Your task to perform on an android device: Go to settings Image 0: 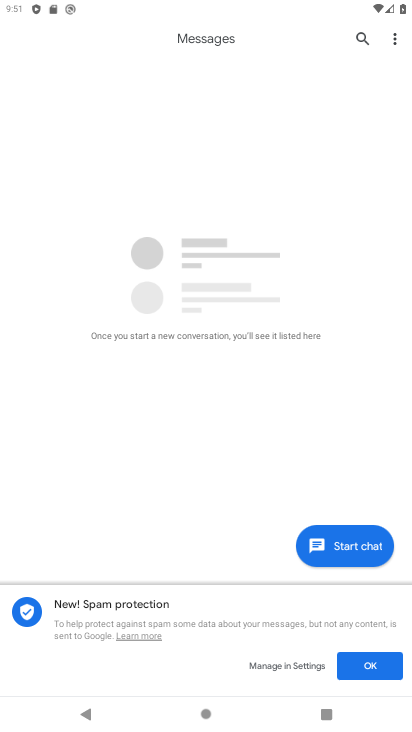
Step 0: press home button
Your task to perform on an android device: Go to settings Image 1: 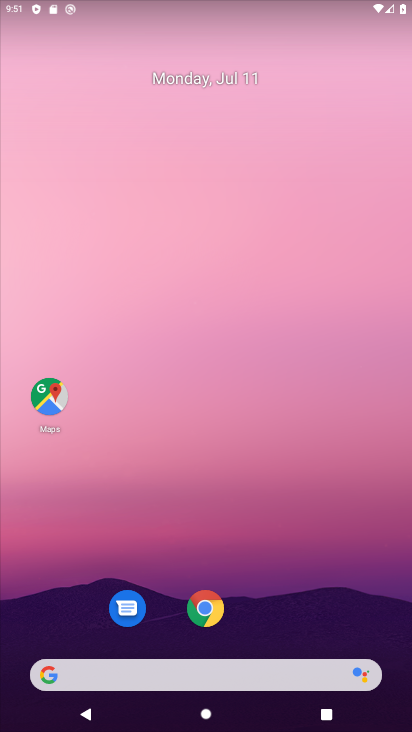
Step 1: drag from (39, 721) to (378, 2)
Your task to perform on an android device: Go to settings Image 2: 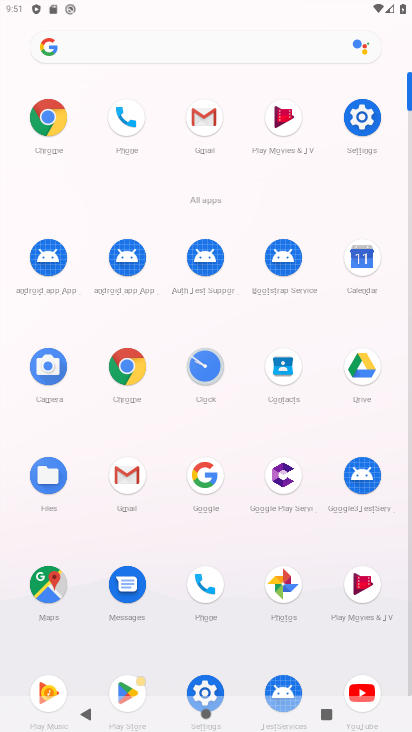
Step 2: click (204, 687)
Your task to perform on an android device: Go to settings Image 3: 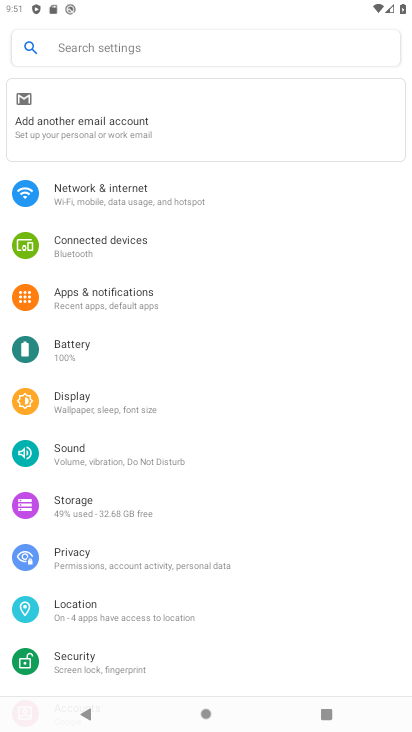
Step 3: task complete